Your task to perform on an android device: change notifications settings Image 0: 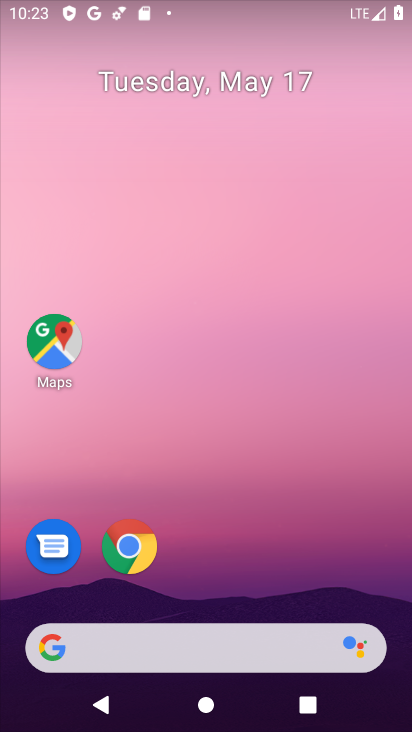
Step 0: drag from (237, 607) to (299, 47)
Your task to perform on an android device: change notifications settings Image 1: 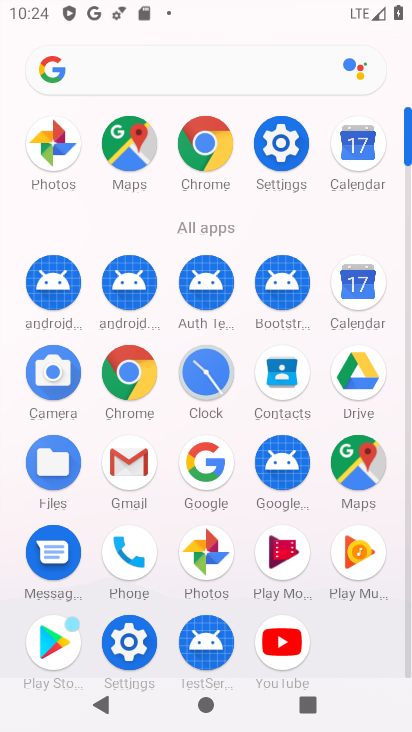
Step 1: click (140, 635)
Your task to perform on an android device: change notifications settings Image 2: 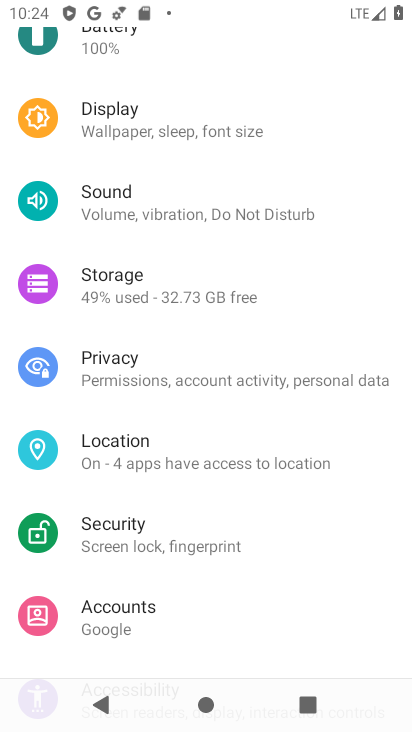
Step 2: drag from (176, 202) to (129, 517)
Your task to perform on an android device: change notifications settings Image 3: 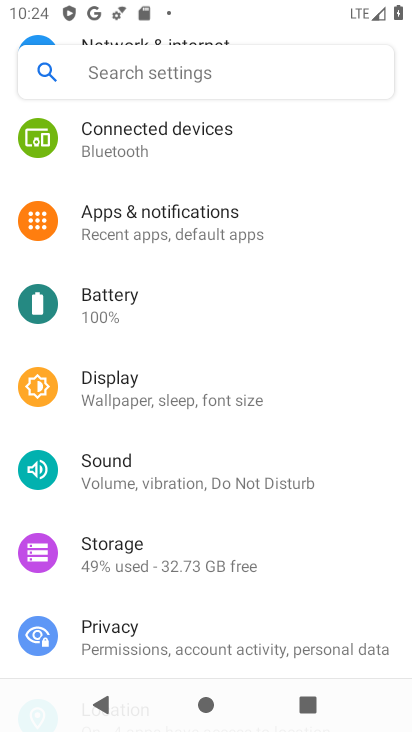
Step 3: click (154, 228)
Your task to perform on an android device: change notifications settings Image 4: 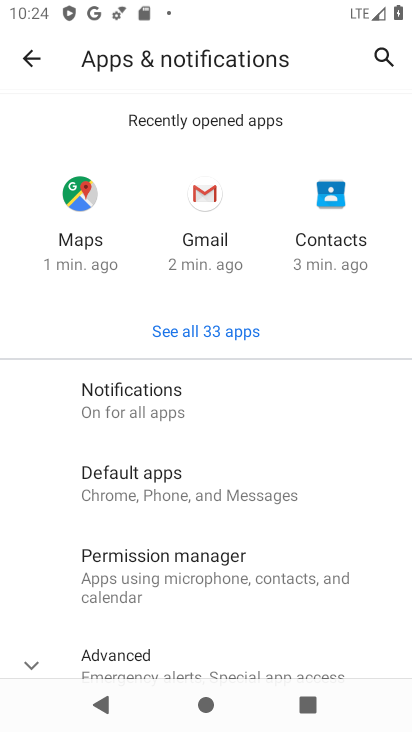
Step 4: click (142, 416)
Your task to perform on an android device: change notifications settings Image 5: 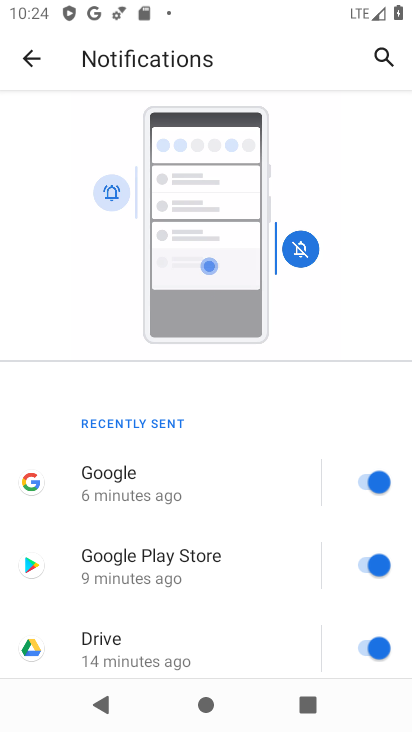
Step 5: drag from (170, 535) to (201, 298)
Your task to perform on an android device: change notifications settings Image 6: 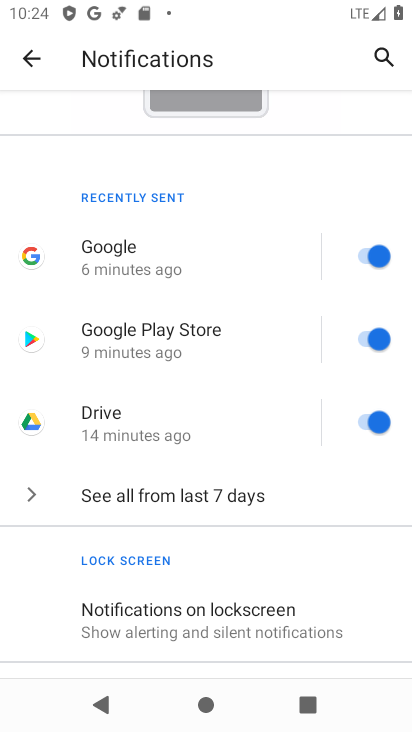
Step 6: drag from (146, 327) to (127, 591)
Your task to perform on an android device: change notifications settings Image 7: 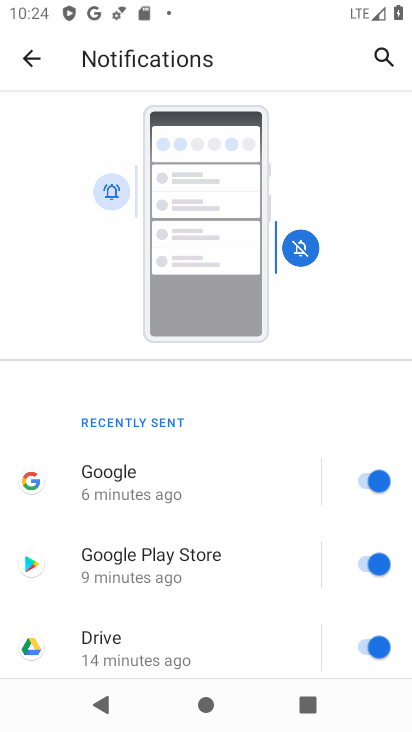
Step 7: drag from (153, 578) to (178, 443)
Your task to perform on an android device: change notifications settings Image 8: 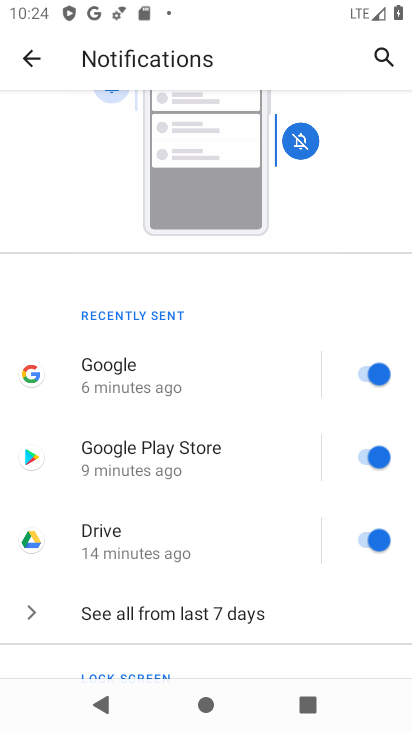
Step 8: click (351, 367)
Your task to perform on an android device: change notifications settings Image 9: 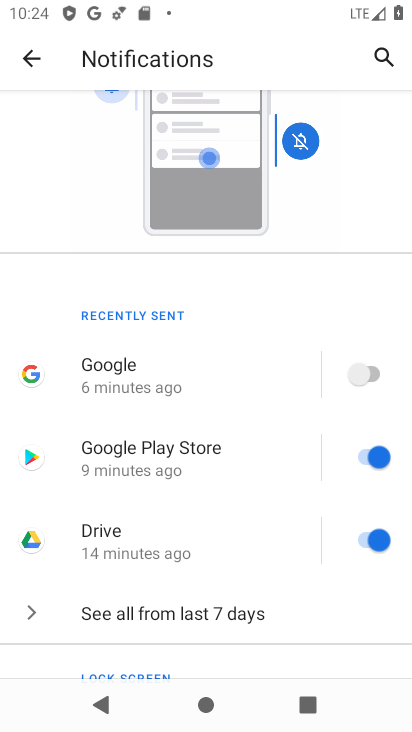
Step 9: click (357, 471)
Your task to perform on an android device: change notifications settings Image 10: 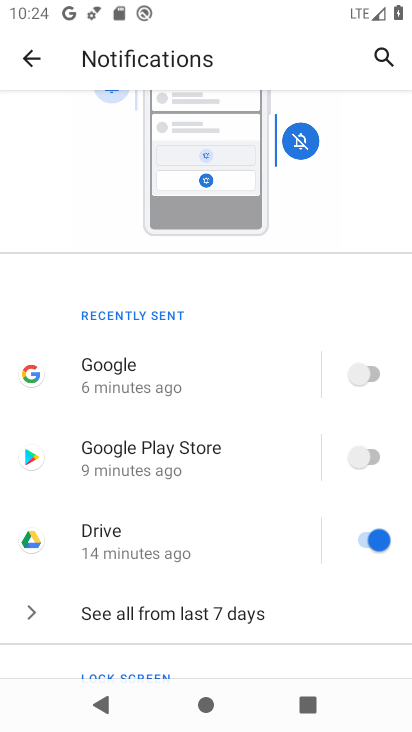
Step 10: click (364, 534)
Your task to perform on an android device: change notifications settings Image 11: 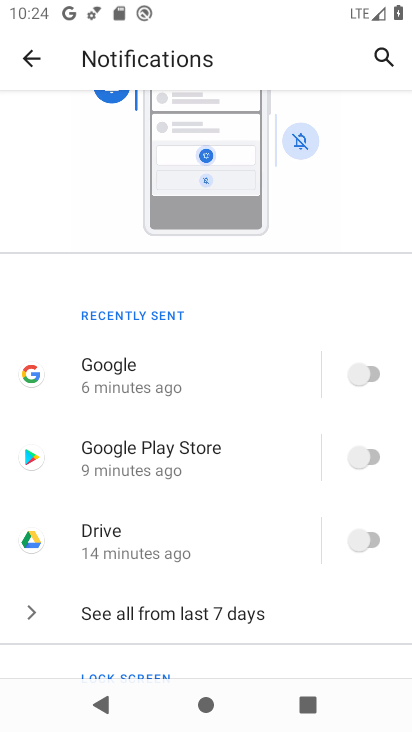
Step 11: drag from (273, 607) to (305, 244)
Your task to perform on an android device: change notifications settings Image 12: 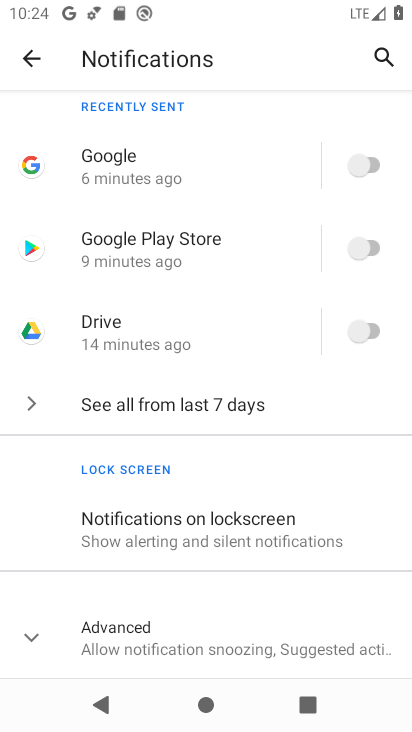
Step 12: click (216, 405)
Your task to perform on an android device: change notifications settings Image 13: 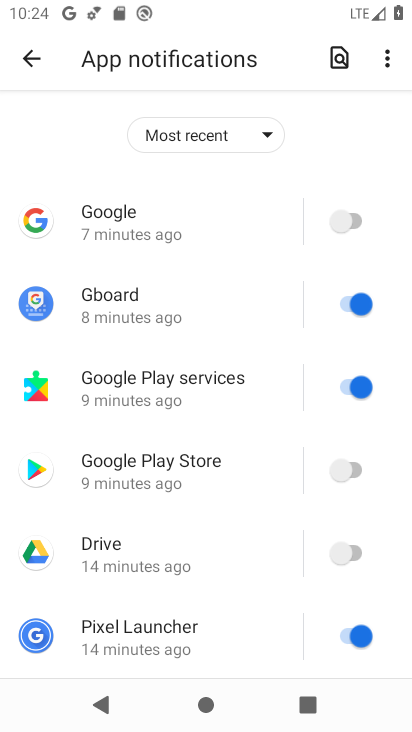
Step 13: click (345, 378)
Your task to perform on an android device: change notifications settings Image 14: 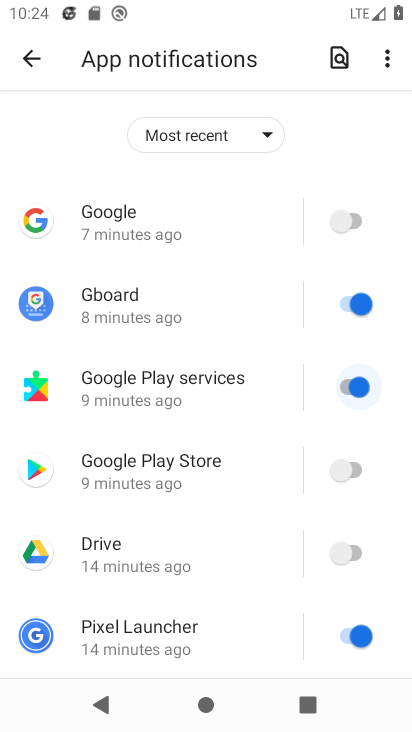
Step 14: click (342, 288)
Your task to perform on an android device: change notifications settings Image 15: 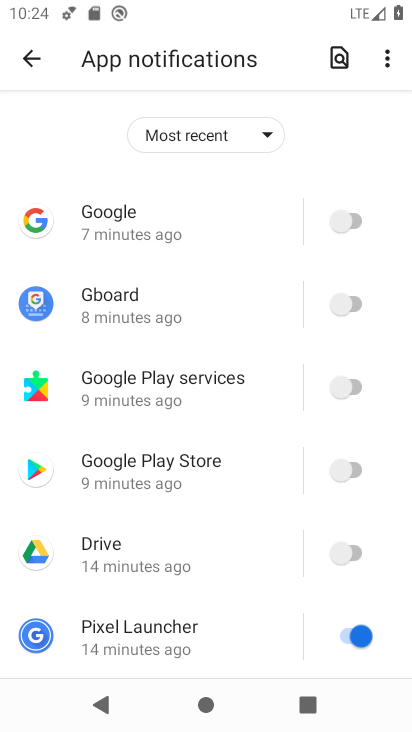
Step 15: drag from (241, 511) to (288, 151)
Your task to perform on an android device: change notifications settings Image 16: 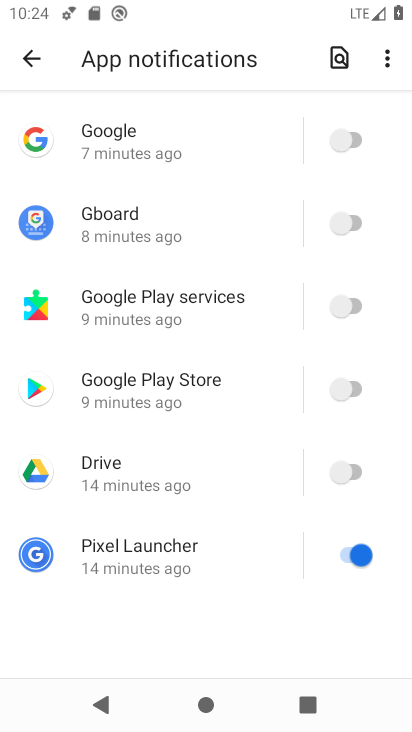
Step 16: click (343, 560)
Your task to perform on an android device: change notifications settings Image 17: 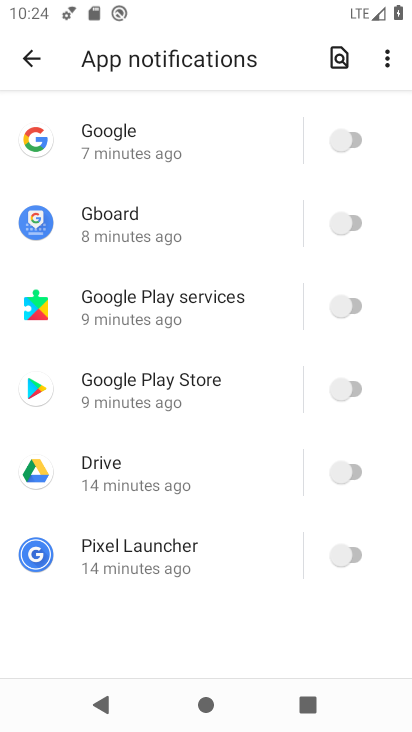
Step 17: task complete